Your task to perform on an android device: set the stopwatch Image 0: 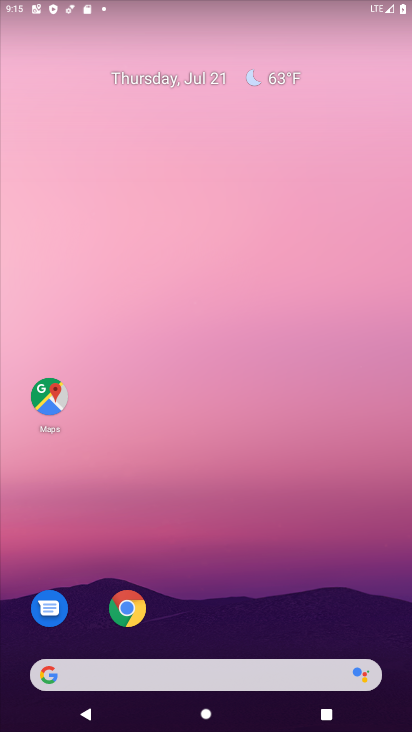
Step 0: drag from (202, 626) to (210, 157)
Your task to perform on an android device: set the stopwatch Image 1: 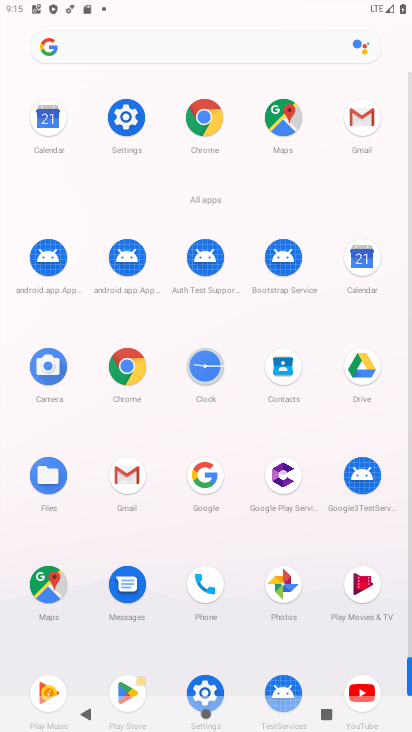
Step 1: click (206, 365)
Your task to perform on an android device: set the stopwatch Image 2: 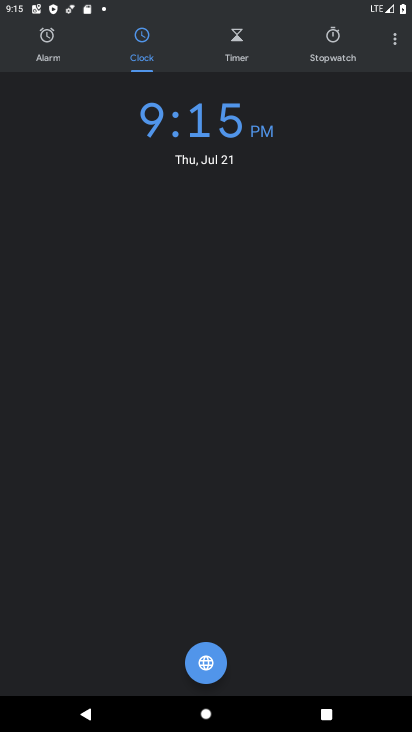
Step 2: click (329, 57)
Your task to perform on an android device: set the stopwatch Image 3: 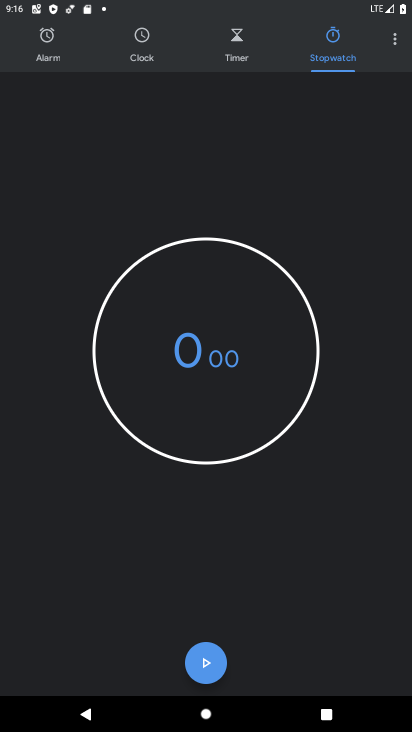
Step 3: click (220, 659)
Your task to perform on an android device: set the stopwatch Image 4: 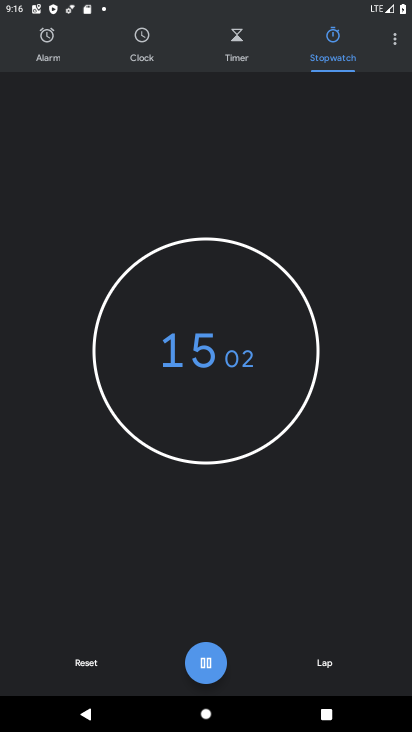
Step 4: task complete